Your task to perform on an android device: change the upload size in google photos Image 0: 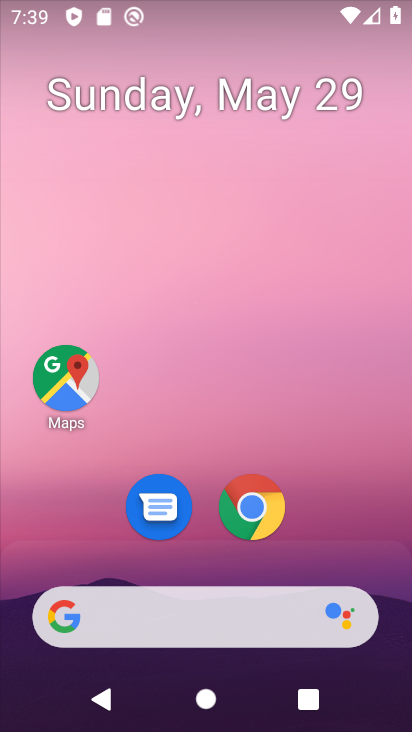
Step 0: drag from (344, 572) to (340, 127)
Your task to perform on an android device: change the upload size in google photos Image 1: 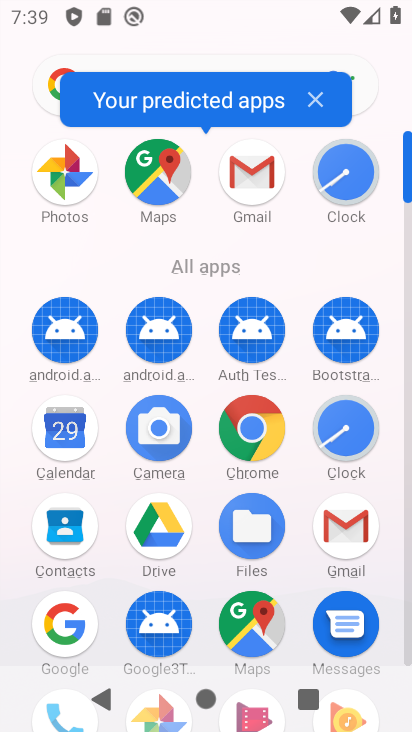
Step 1: drag from (311, 584) to (367, 234)
Your task to perform on an android device: change the upload size in google photos Image 2: 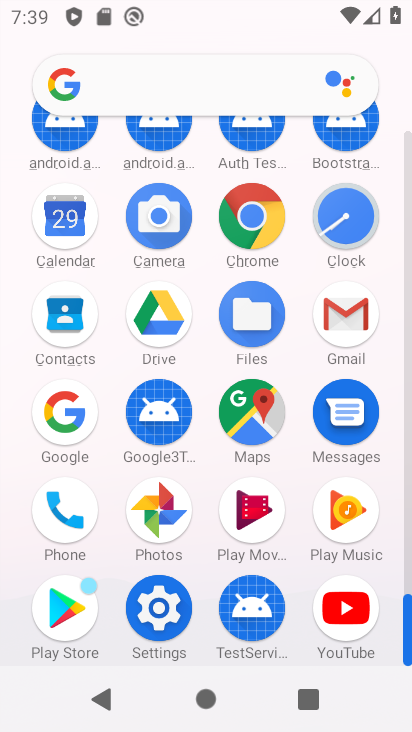
Step 2: click (173, 505)
Your task to perform on an android device: change the upload size in google photos Image 3: 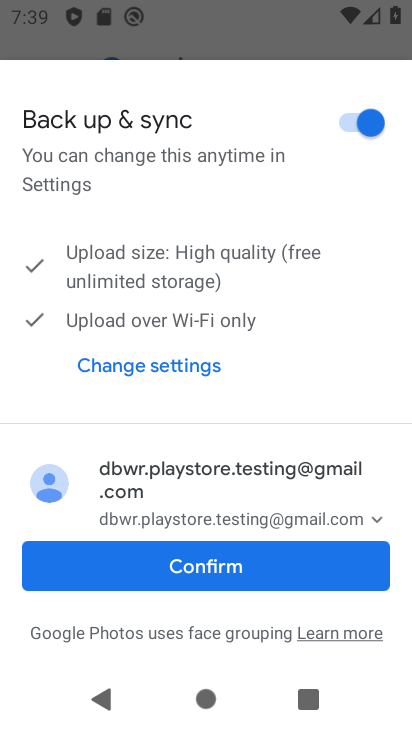
Step 3: click (179, 564)
Your task to perform on an android device: change the upload size in google photos Image 4: 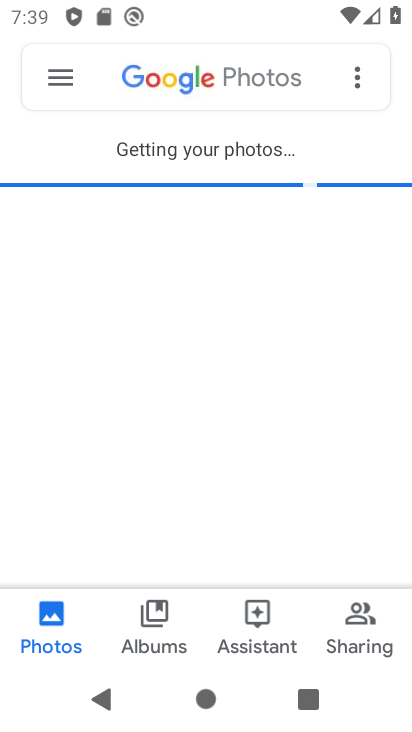
Step 4: click (37, 76)
Your task to perform on an android device: change the upload size in google photos Image 5: 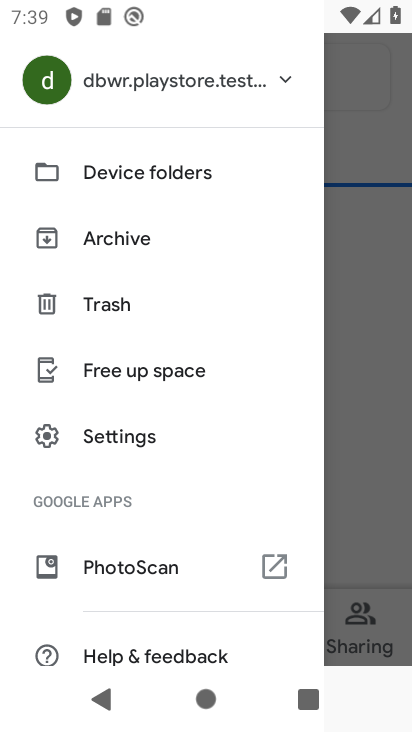
Step 5: click (130, 444)
Your task to perform on an android device: change the upload size in google photos Image 6: 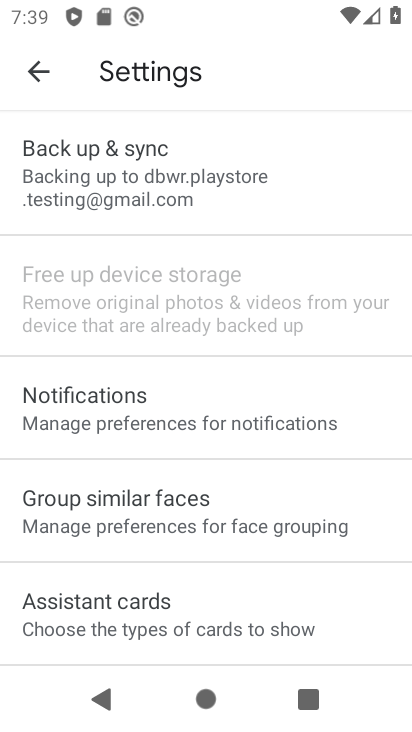
Step 6: click (150, 190)
Your task to perform on an android device: change the upload size in google photos Image 7: 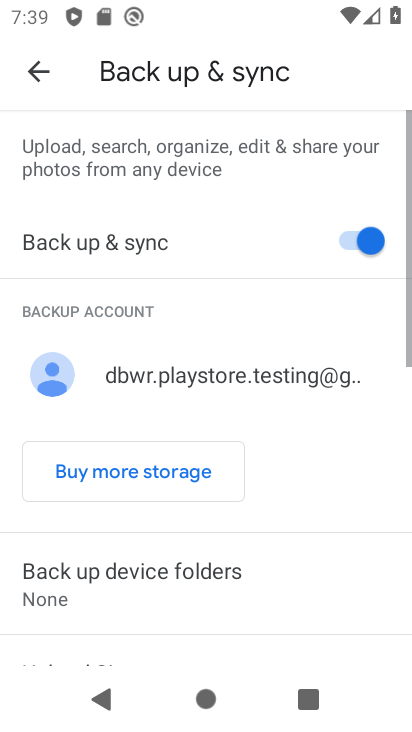
Step 7: drag from (200, 551) to (407, 118)
Your task to perform on an android device: change the upload size in google photos Image 8: 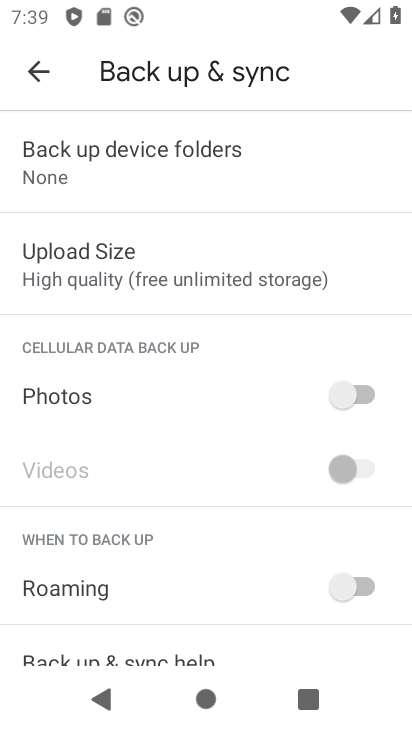
Step 8: click (285, 283)
Your task to perform on an android device: change the upload size in google photos Image 9: 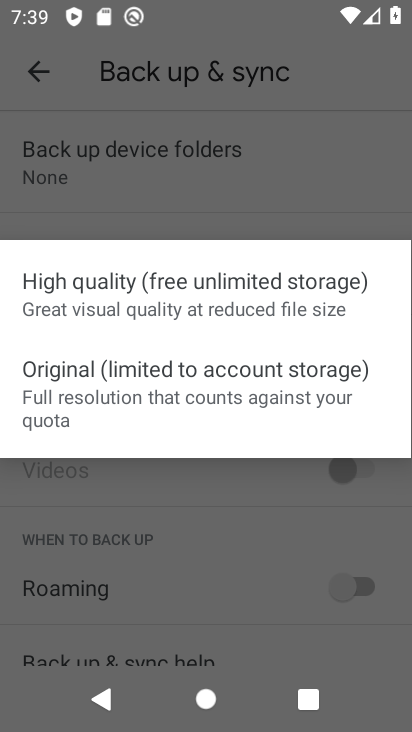
Step 9: click (280, 232)
Your task to perform on an android device: change the upload size in google photos Image 10: 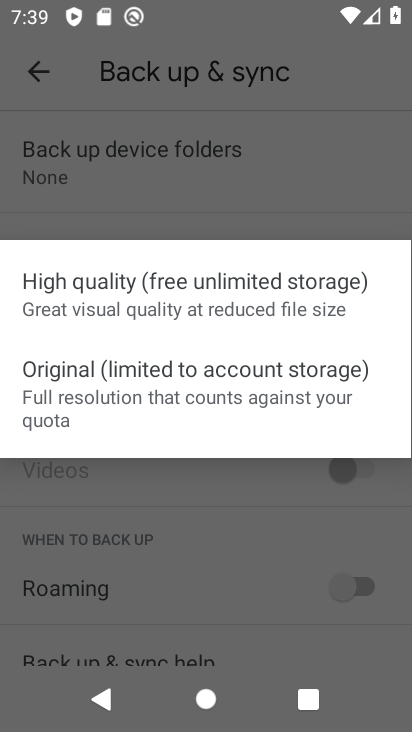
Step 10: click (194, 387)
Your task to perform on an android device: change the upload size in google photos Image 11: 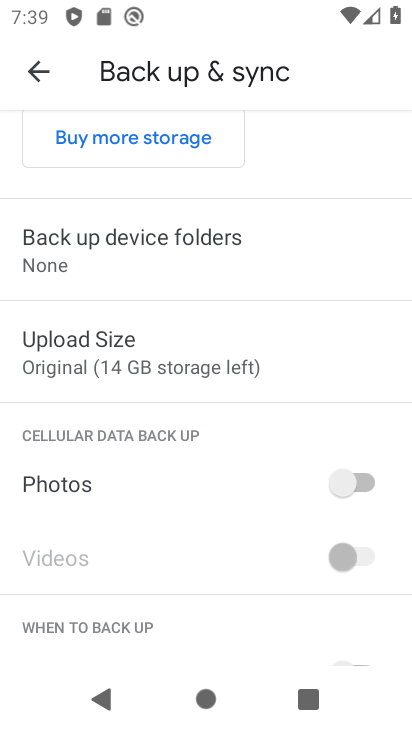
Step 11: task complete